Your task to perform on an android device: Toggle the flashlight Image 0: 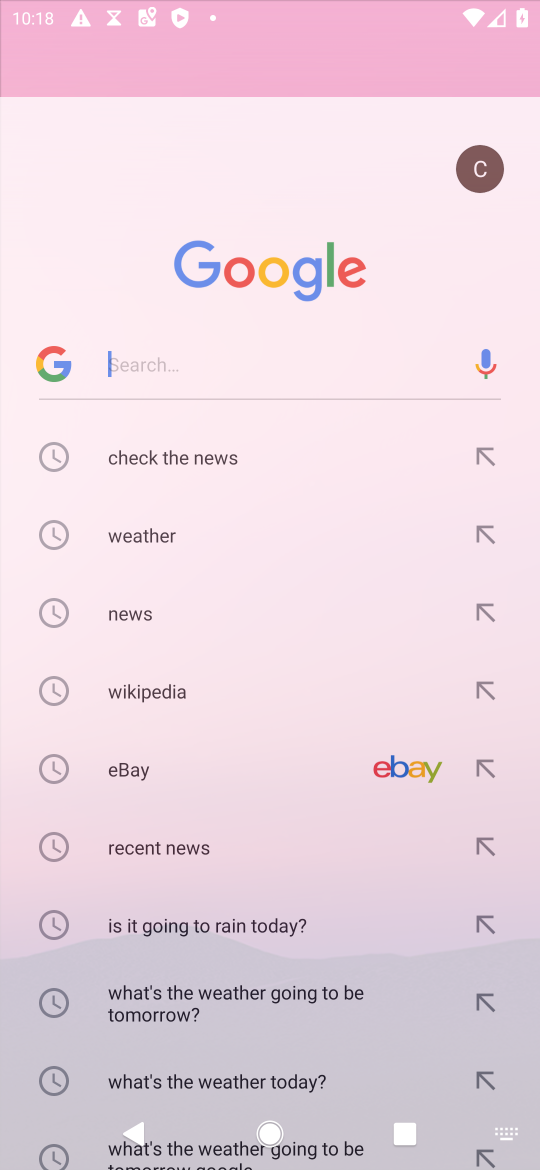
Step 0: press home button
Your task to perform on an android device: Toggle the flashlight Image 1: 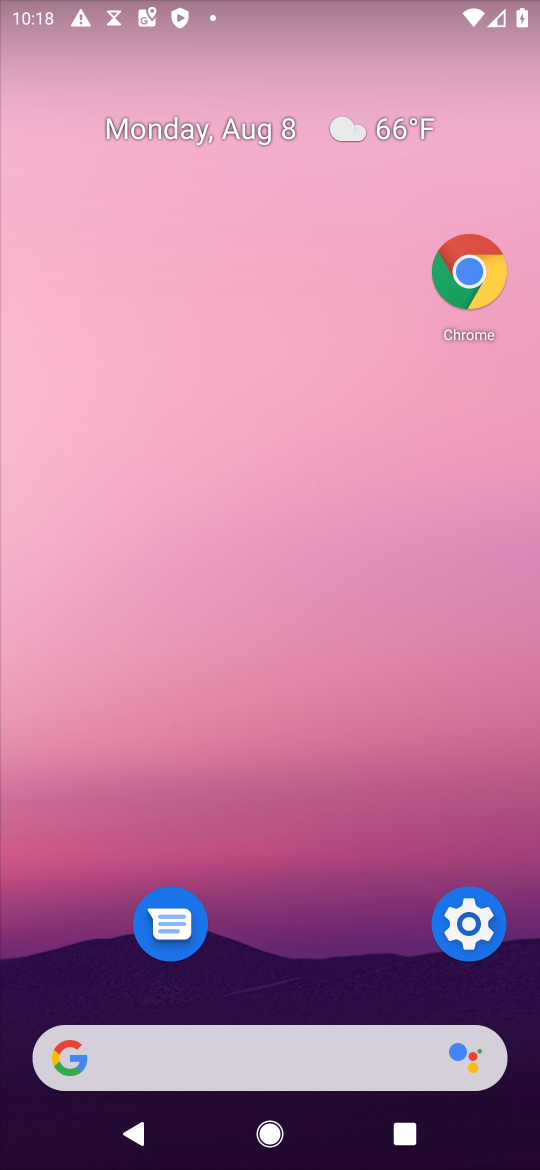
Step 1: task complete